Your task to perform on an android device: open app "Roku - Official Remote Control" (install if not already installed) and go to login screen Image 0: 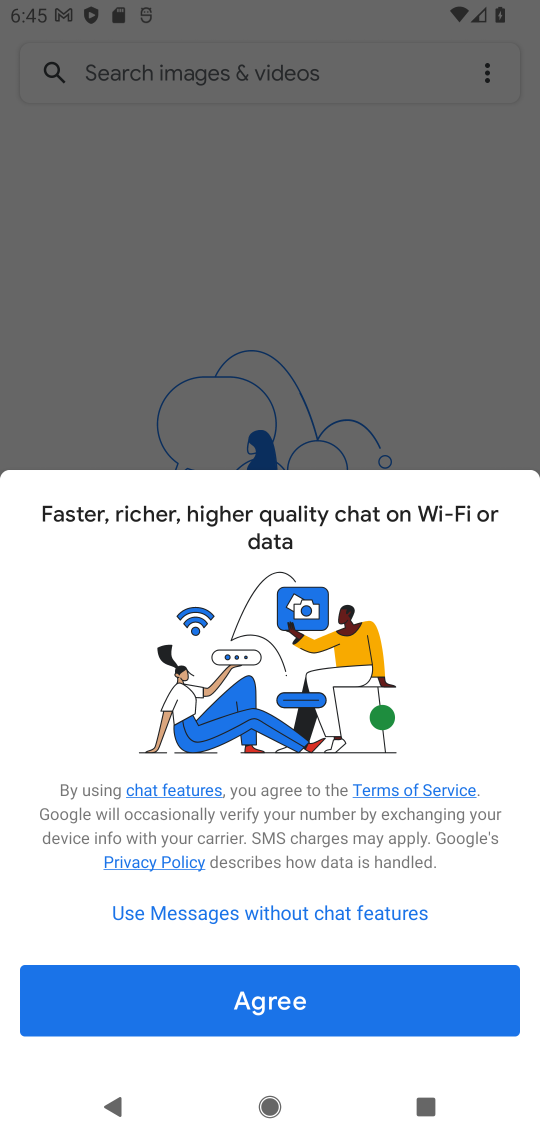
Step 0: press home button
Your task to perform on an android device: open app "Roku - Official Remote Control" (install if not already installed) and go to login screen Image 1: 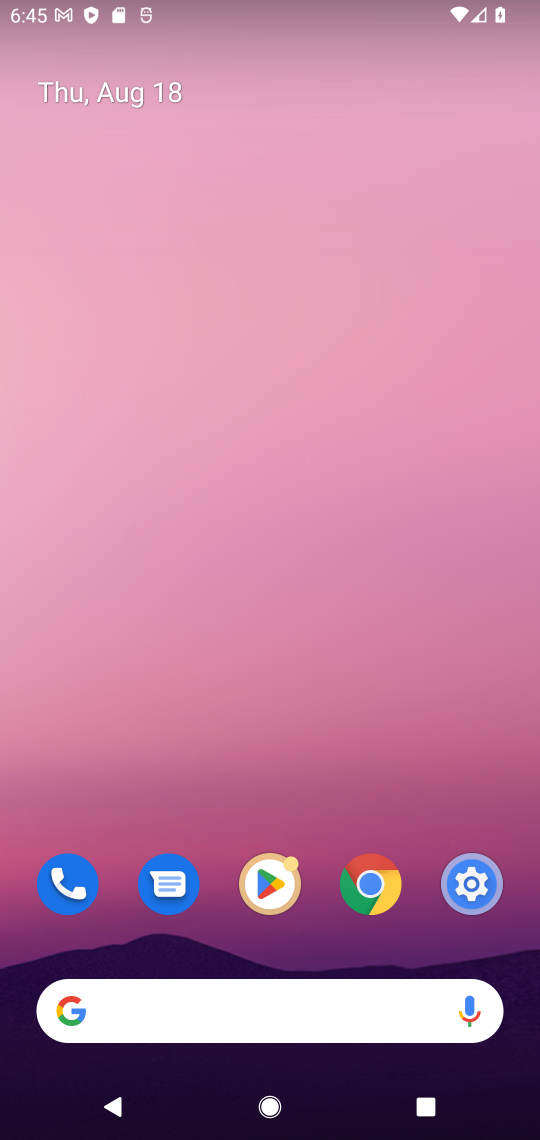
Step 1: drag from (268, 1031) to (220, 23)
Your task to perform on an android device: open app "Roku - Official Remote Control" (install if not already installed) and go to login screen Image 2: 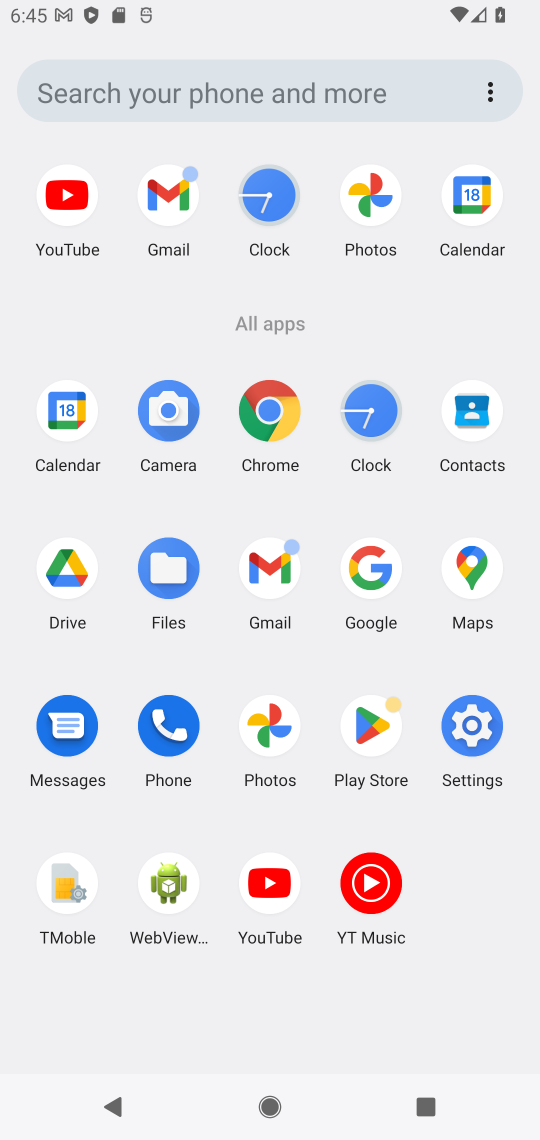
Step 2: click (371, 730)
Your task to perform on an android device: open app "Roku - Official Remote Control" (install if not already installed) and go to login screen Image 3: 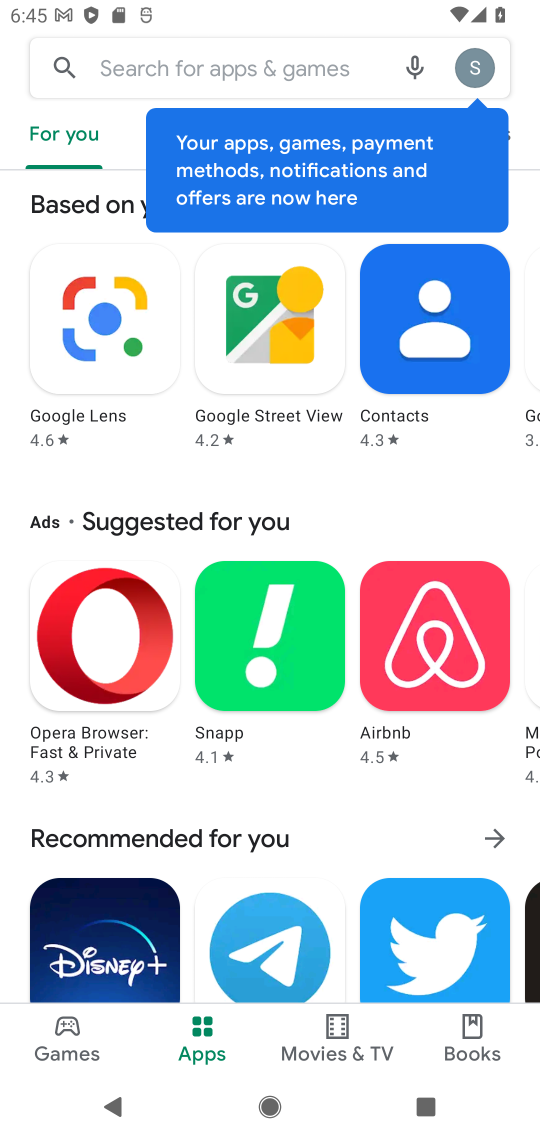
Step 3: click (301, 74)
Your task to perform on an android device: open app "Roku - Official Remote Control" (install if not already installed) and go to login screen Image 4: 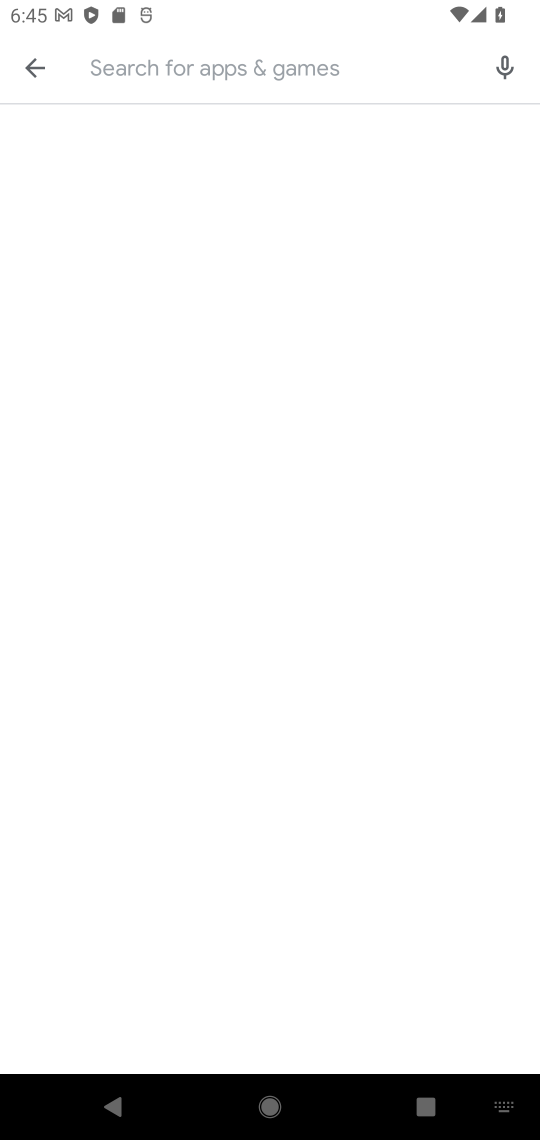
Step 4: type "Roku - Official Remote Control"
Your task to perform on an android device: open app "Roku - Official Remote Control" (install if not already installed) and go to login screen Image 5: 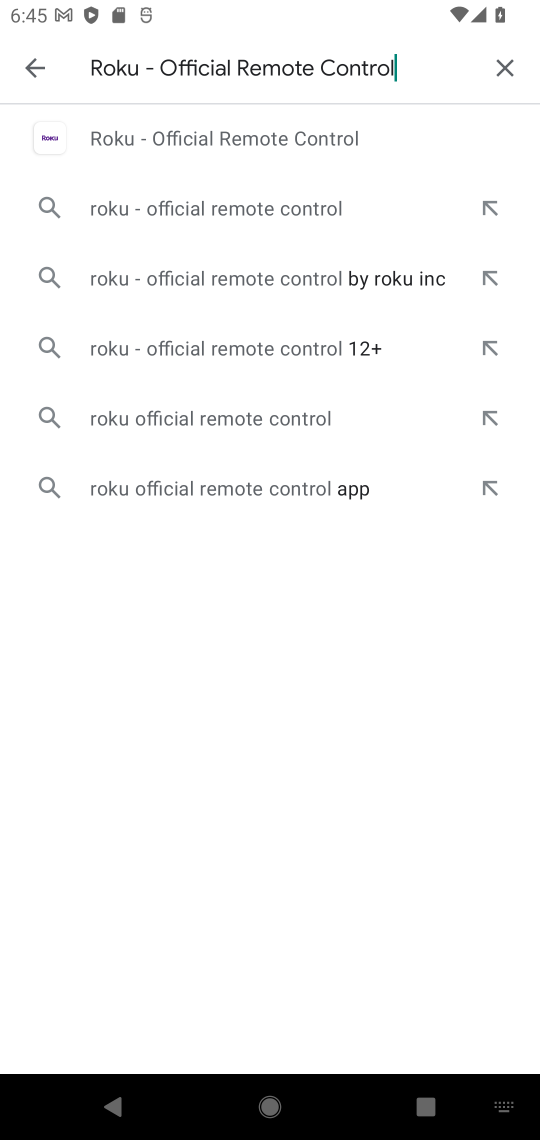
Step 5: click (286, 146)
Your task to perform on an android device: open app "Roku - Official Remote Control" (install if not already installed) and go to login screen Image 6: 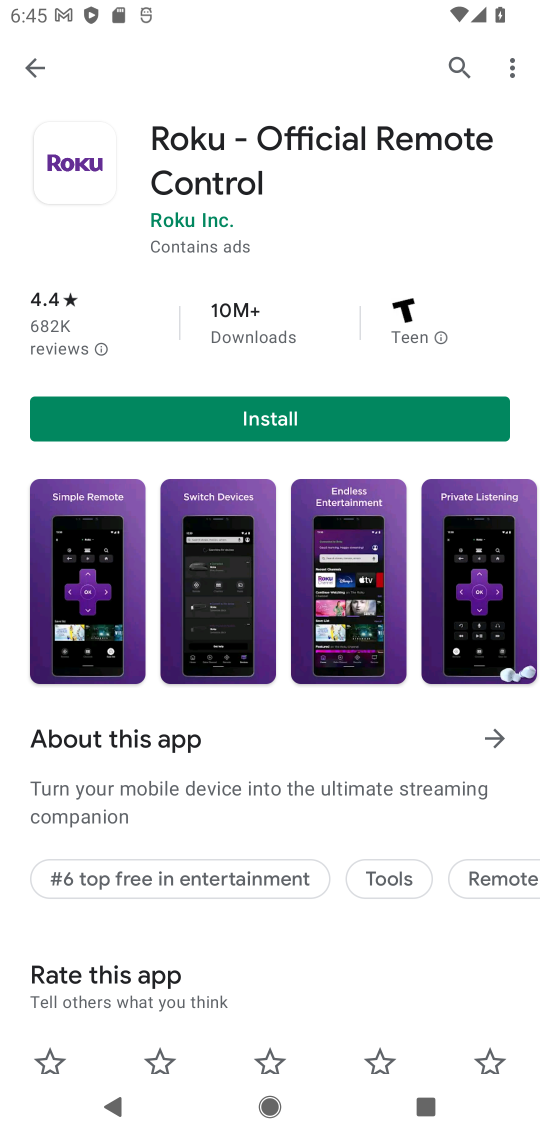
Step 6: click (303, 420)
Your task to perform on an android device: open app "Roku - Official Remote Control" (install if not already installed) and go to login screen Image 7: 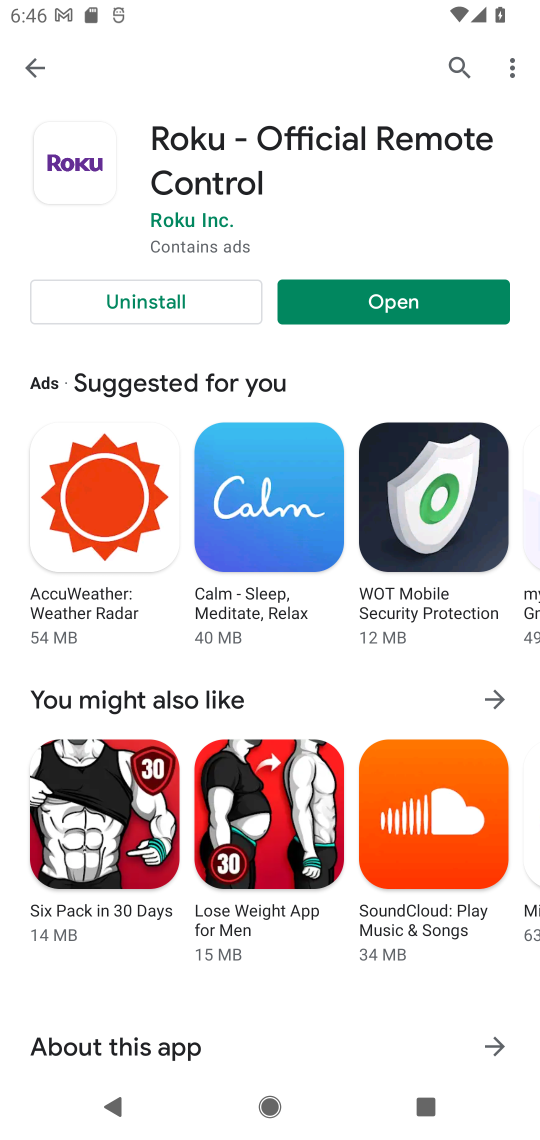
Step 7: click (395, 310)
Your task to perform on an android device: open app "Roku - Official Remote Control" (install if not already installed) and go to login screen Image 8: 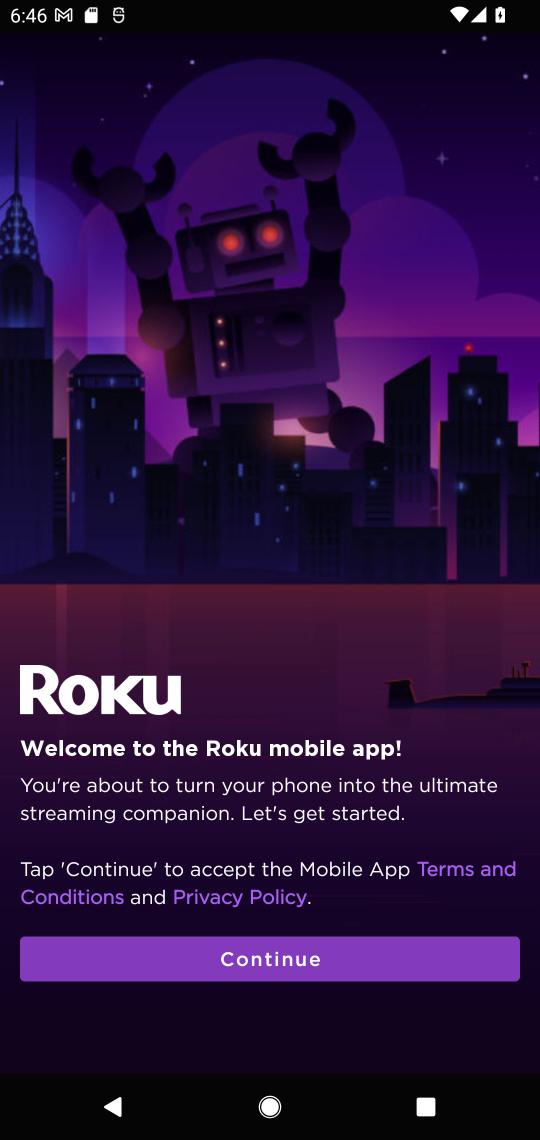
Step 8: click (284, 953)
Your task to perform on an android device: open app "Roku - Official Remote Control" (install if not already installed) and go to login screen Image 9: 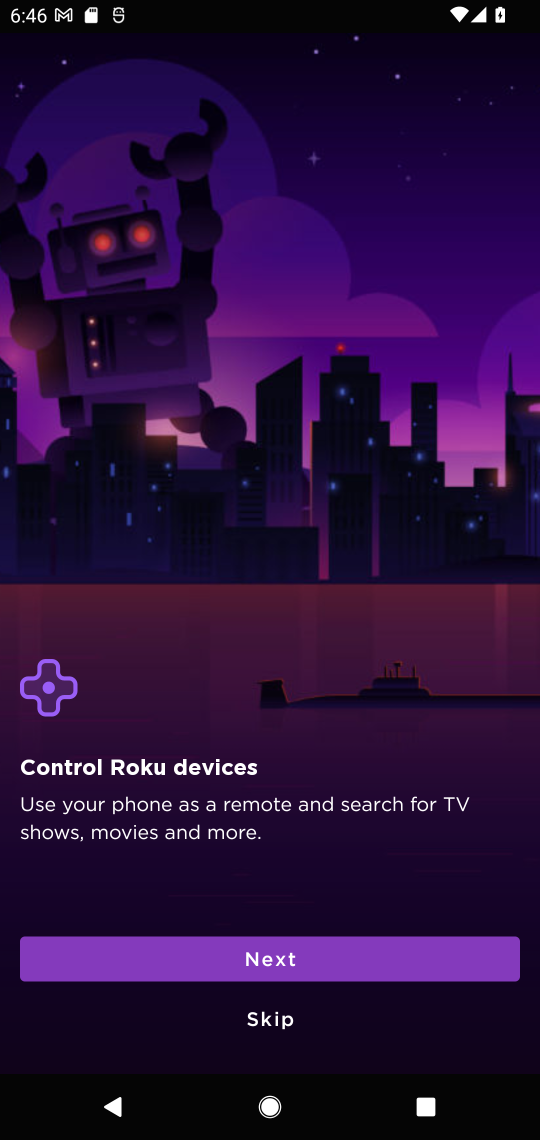
Step 9: click (284, 953)
Your task to perform on an android device: open app "Roku - Official Remote Control" (install if not already installed) and go to login screen Image 10: 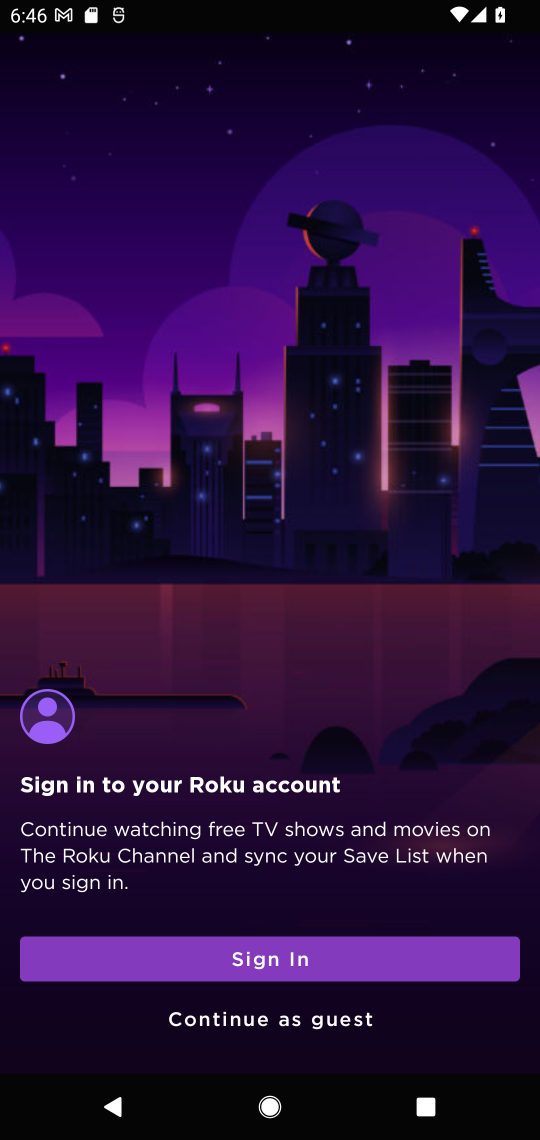
Step 10: click (321, 963)
Your task to perform on an android device: open app "Roku - Official Remote Control" (install if not already installed) and go to login screen Image 11: 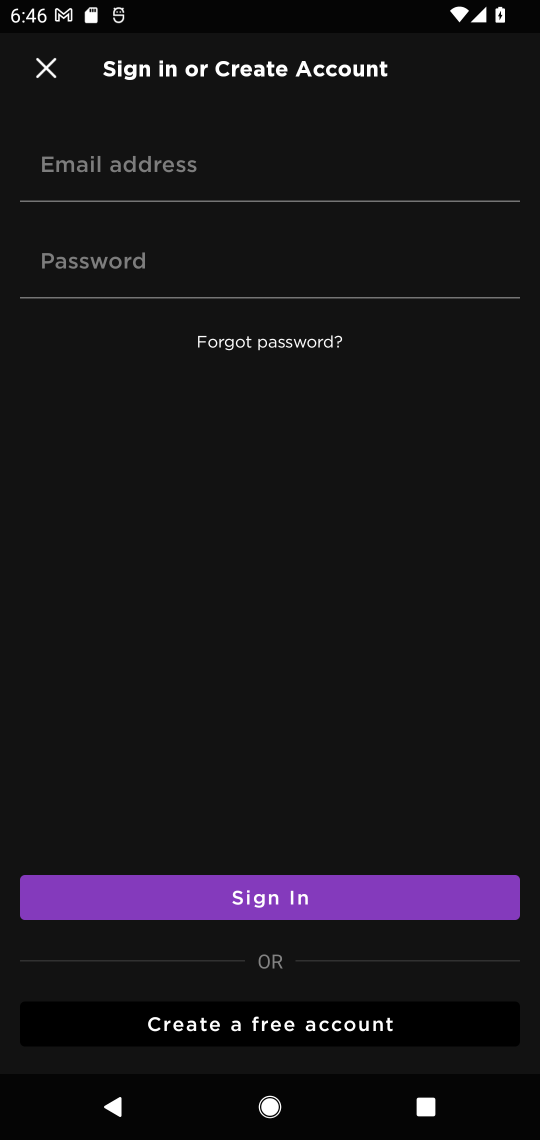
Step 11: task complete